Your task to perform on an android device: What is the recent news? Image 0: 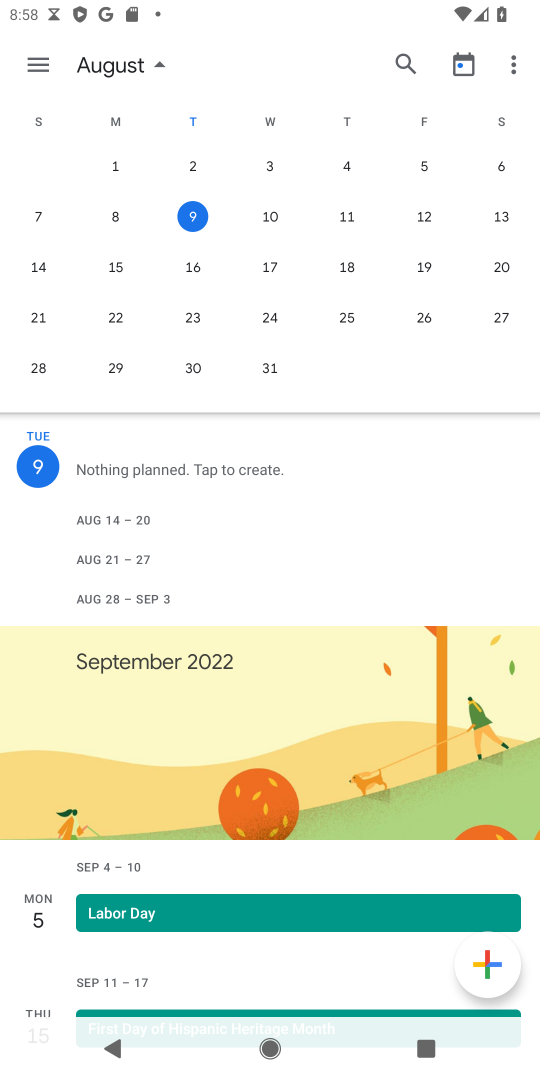
Step 0: press home button
Your task to perform on an android device: What is the recent news? Image 1: 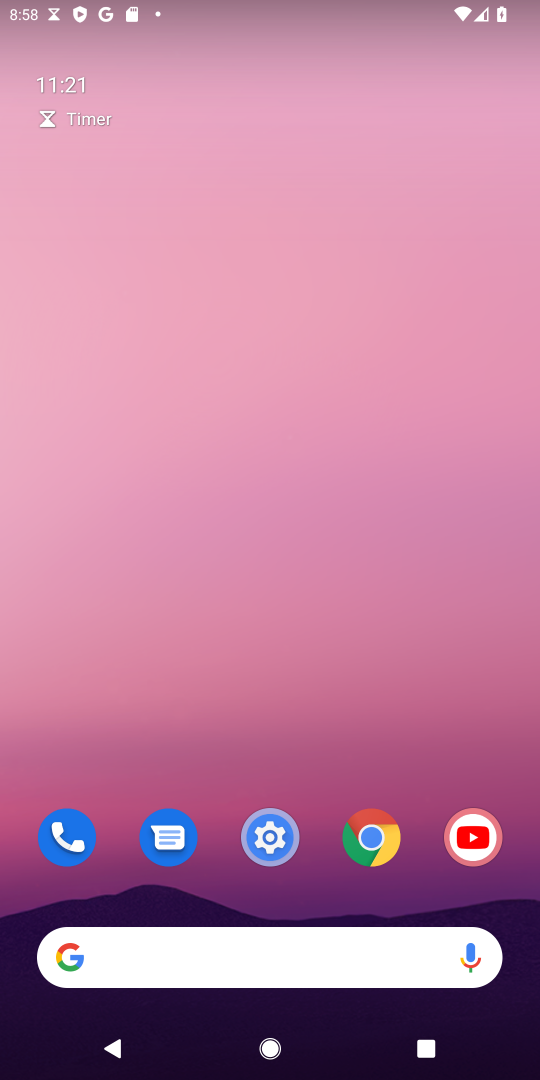
Step 1: task complete